Your task to perform on an android device: Open the Play Movies app and select the watchlist tab. Image 0: 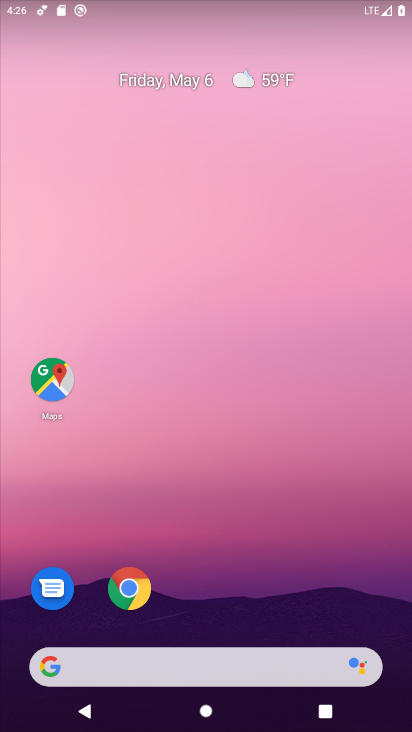
Step 0: drag from (222, 599) to (222, 200)
Your task to perform on an android device: Open the Play Movies app and select the watchlist tab. Image 1: 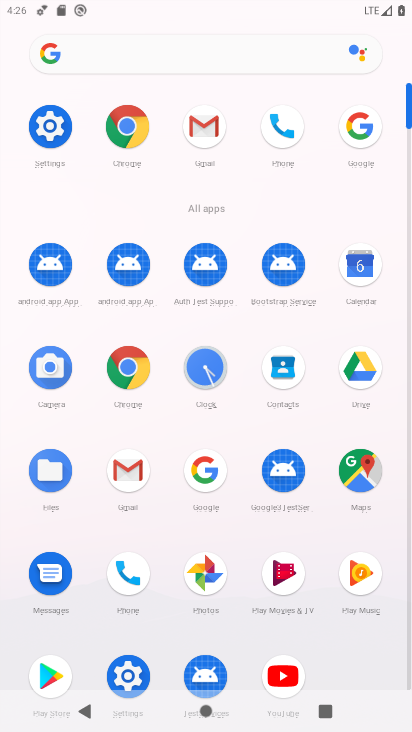
Step 1: click (282, 576)
Your task to perform on an android device: Open the Play Movies app and select the watchlist tab. Image 2: 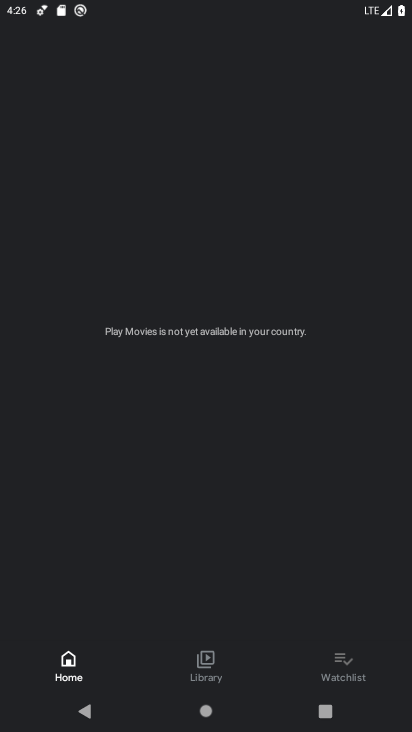
Step 2: click (347, 661)
Your task to perform on an android device: Open the Play Movies app and select the watchlist tab. Image 3: 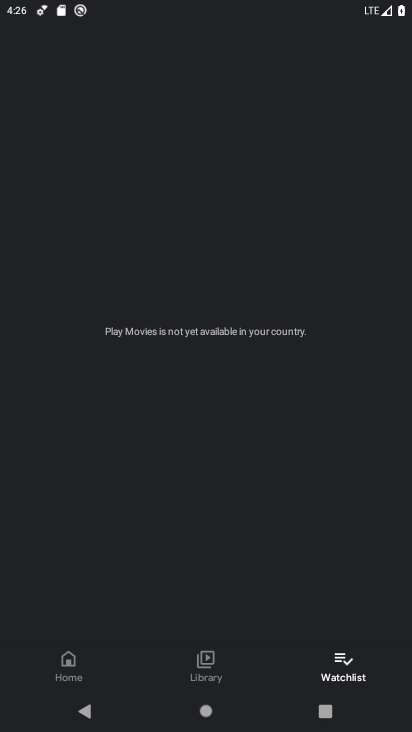
Step 3: task complete